Your task to perform on an android device: Open Google Chrome and open the bookmarks view Image 0: 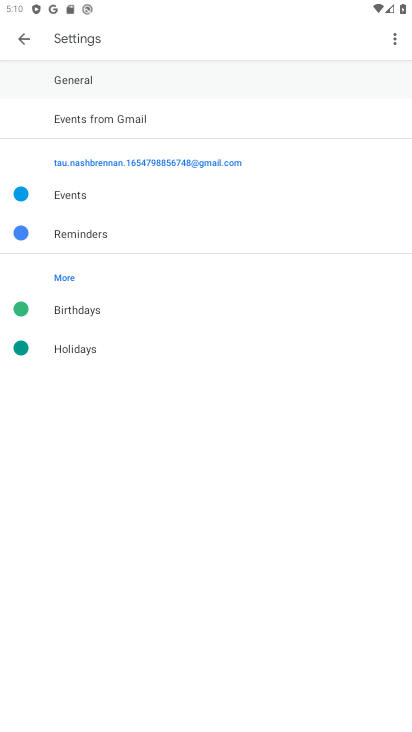
Step 0: press home button
Your task to perform on an android device: Open Google Chrome and open the bookmarks view Image 1: 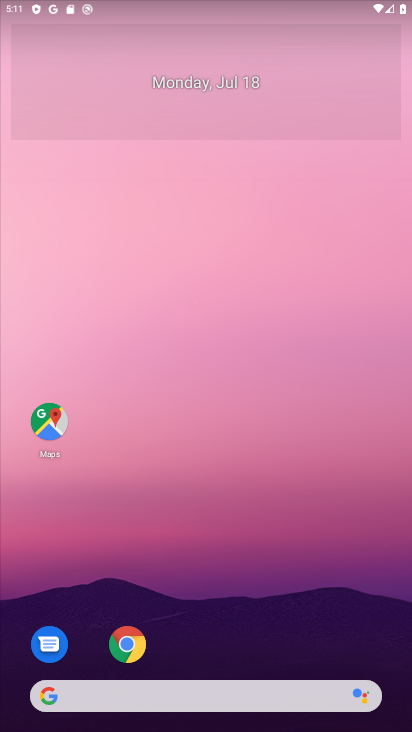
Step 1: click (123, 652)
Your task to perform on an android device: Open Google Chrome and open the bookmarks view Image 2: 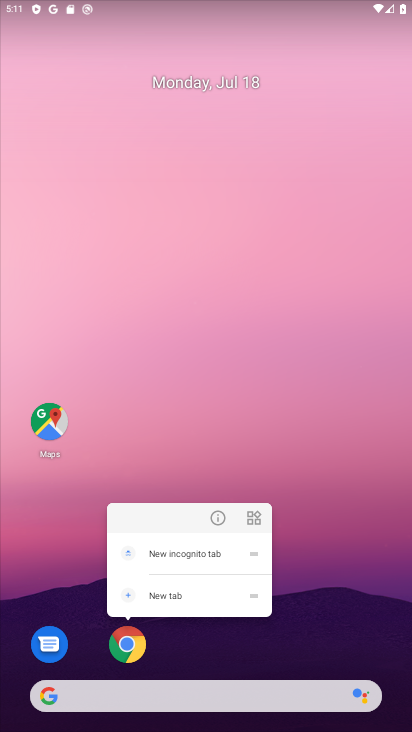
Step 2: click (134, 631)
Your task to perform on an android device: Open Google Chrome and open the bookmarks view Image 3: 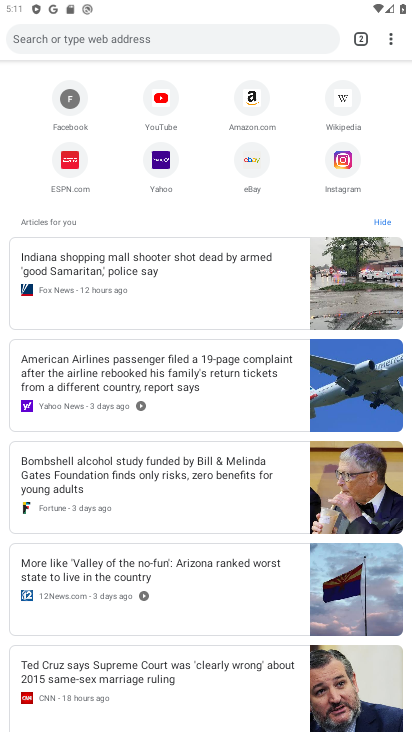
Step 3: task complete